Your task to perform on an android device: toggle location history Image 0: 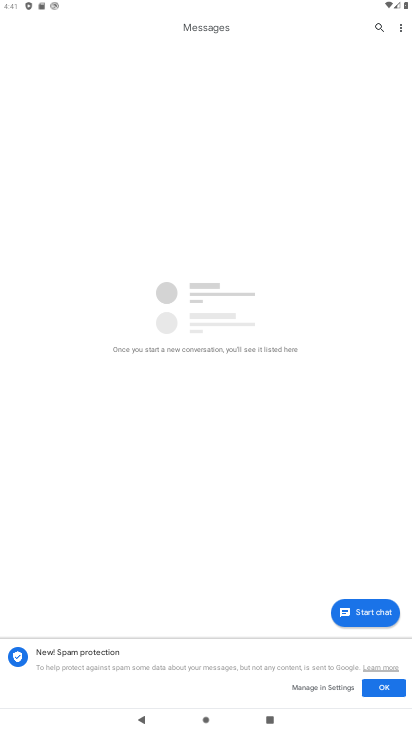
Step 0: press home button
Your task to perform on an android device: toggle location history Image 1: 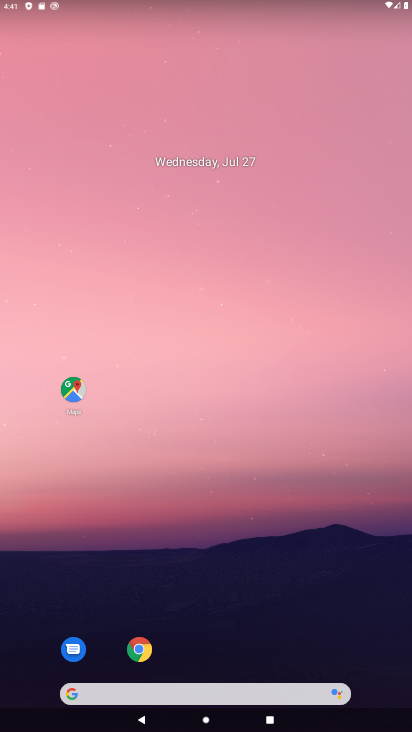
Step 1: drag from (166, 692) to (264, 95)
Your task to perform on an android device: toggle location history Image 2: 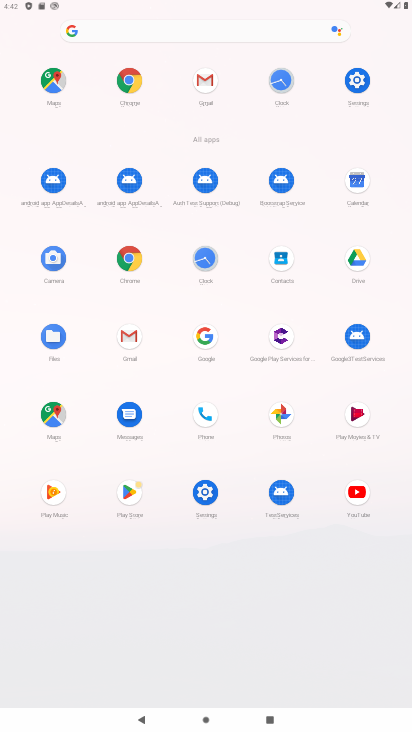
Step 2: click (356, 82)
Your task to perform on an android device: toggle location history Image 3: 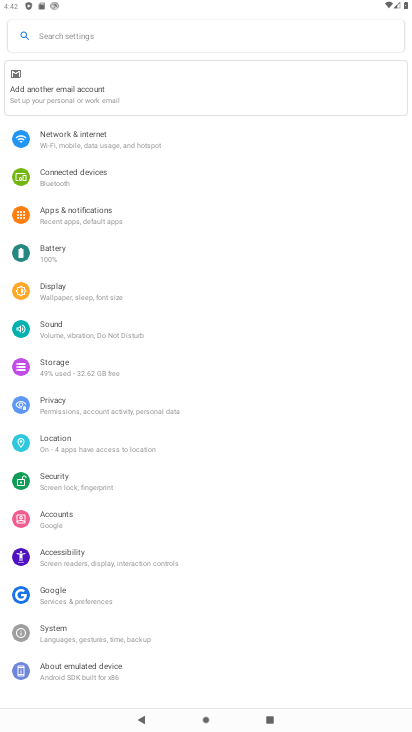
Step 3: click (57, 441)
Your task to perform on an android device: toggle location history Image 4: 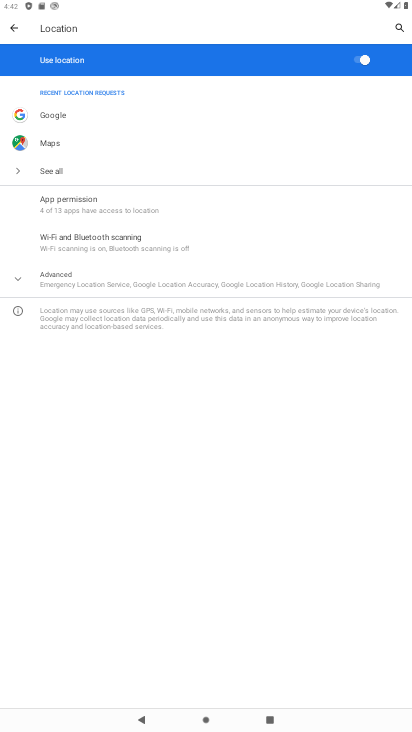
Step 4: click (63, 278)
Your task to perform on an android device: toggle location history Image 5: 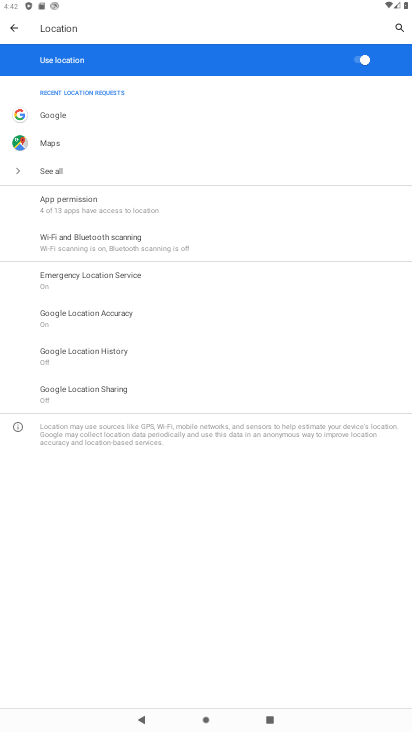
Step 5: click (84, 356)
Your task to perform on an android device: toggle location history Image 6: 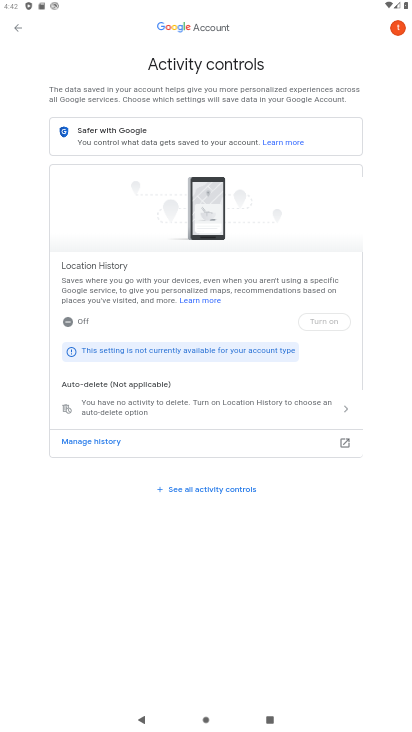
Step 6: click (190, 489)
Your task to perform on an android device: toggle location history Image 7: 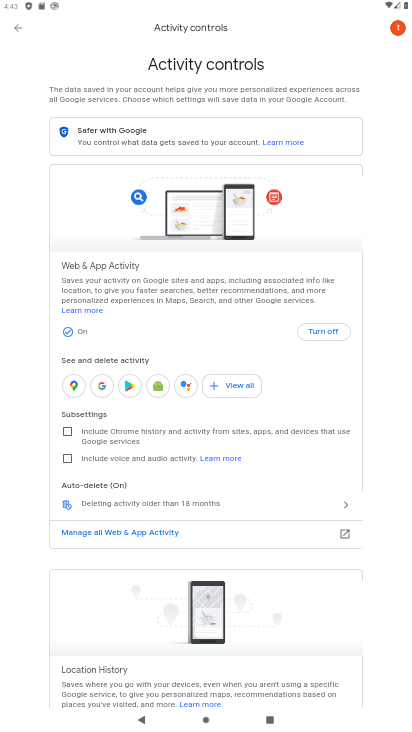
Step 7: task complete